Your task to perform on an android device: move an email to a new category in the gmail app Image 0: 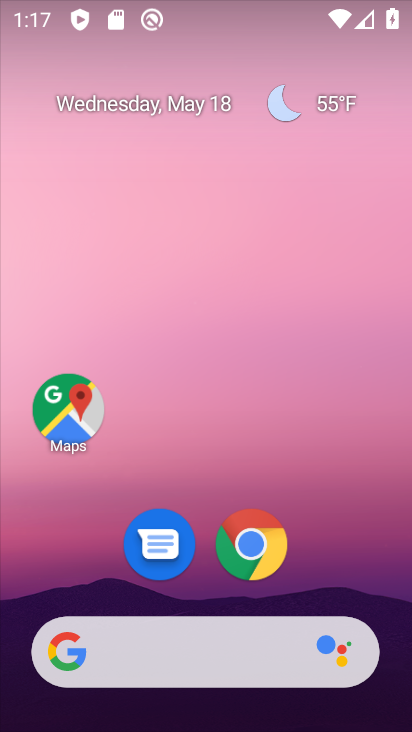
Step 0: drag from (325, 560) to (261, 270)
Your task to perform on an android device: move an email to a new category in the gmail app Image 1: 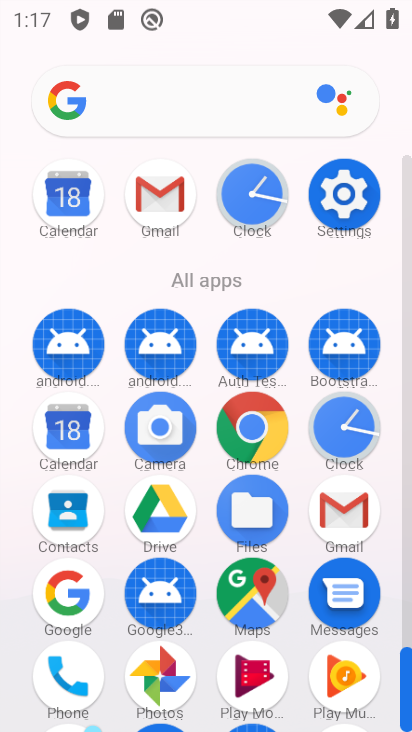
Step 1: click (146, 196)
Your task to perform on an android device: move an email to a new category in the gmail app Image 2: 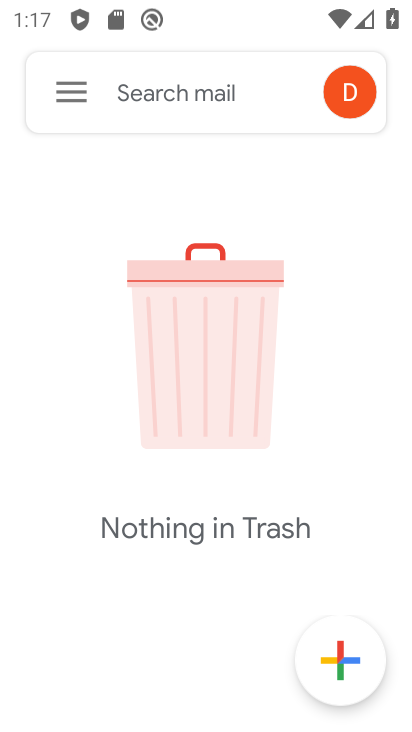
Step 2: click (66, 92)
Your task to perform on an android device: move an email to a new category in the gmail app Image 3: 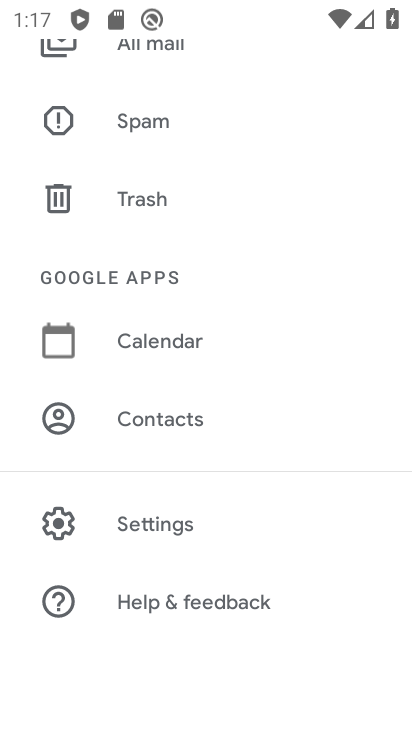
Step 3: click (158, 45)
Your task to perform on an android device: move an email to a new category in the gmail app Image 4: 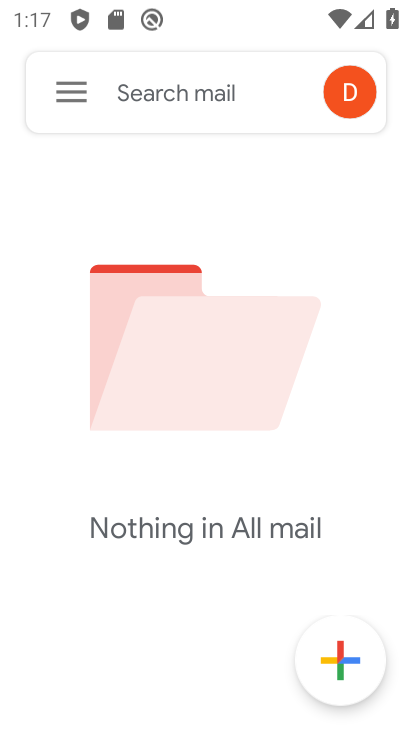
Step 4: task complete